Your task to perform on an android device: turn off wifi Image 0: 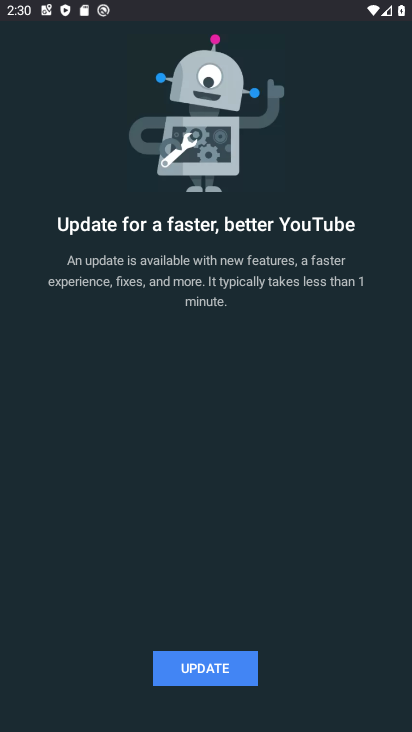
Step 0: press home button
Your task to perform on an android device: turn off wifi Image 1: 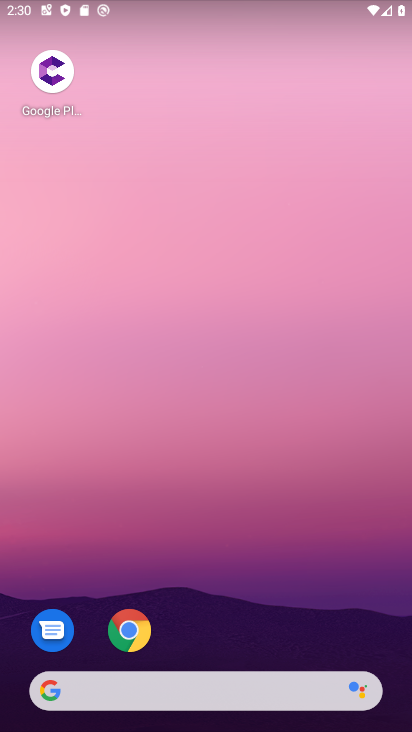
Step 1: drag from (313, 32) to (297, 435)
Your task to perform on an android device: turn off wifi Image 2: 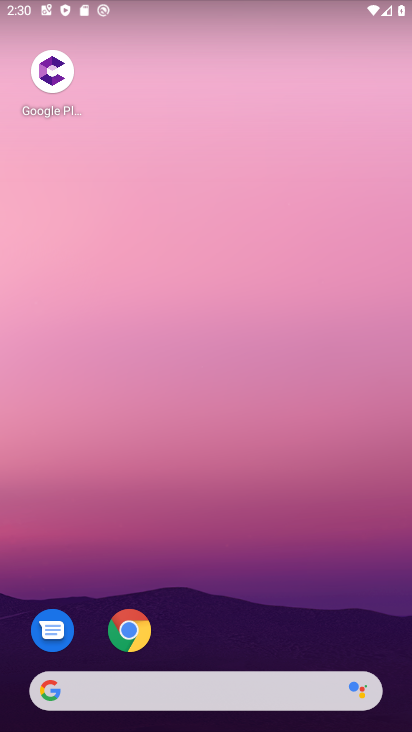
Step 2: drag from (266, 11) to (330, 509)
Your task to perform on an android device: turn off wifi Image 3: 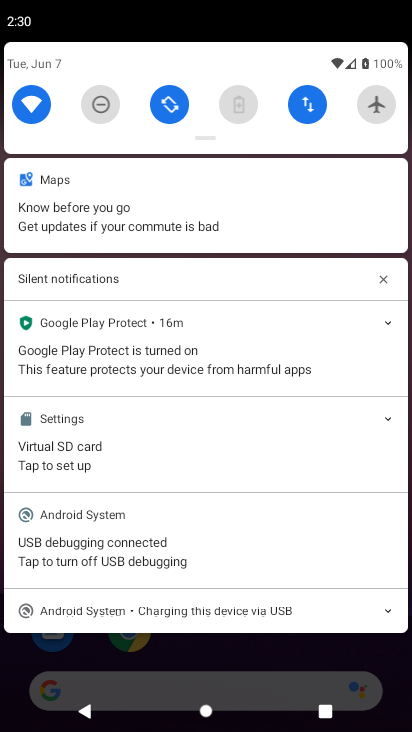
Step 3: click (31, 110)
Your task to perform on an android device: turn off wifi Image 4: 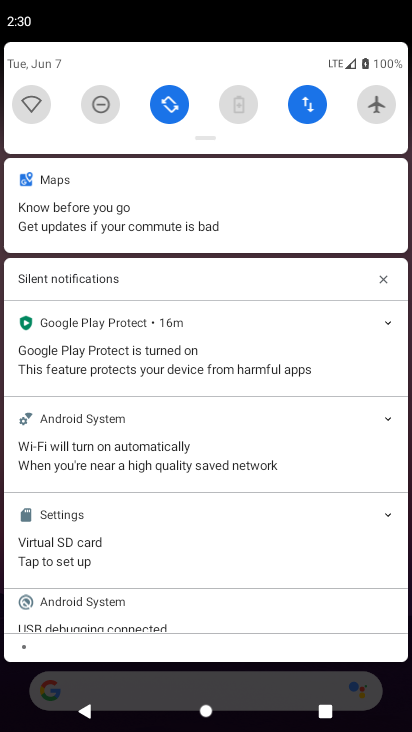
Step 4: task complete